Your task to perform on an android device: Go to network settings Image 0: 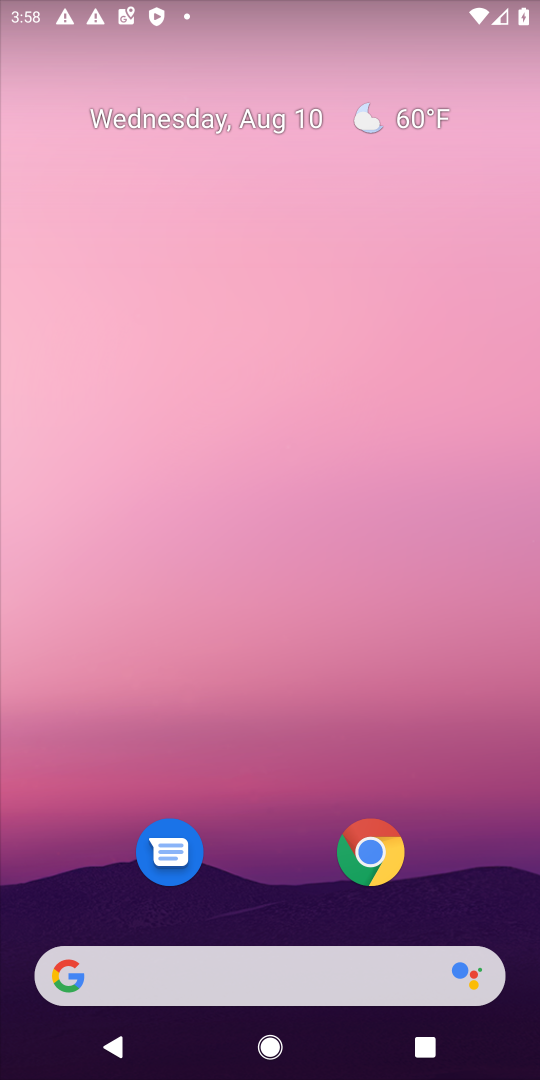
Step 0: drag from (335, 789) to (535, 249)
Your task to perform on an android device: Go to network settings Image 1: 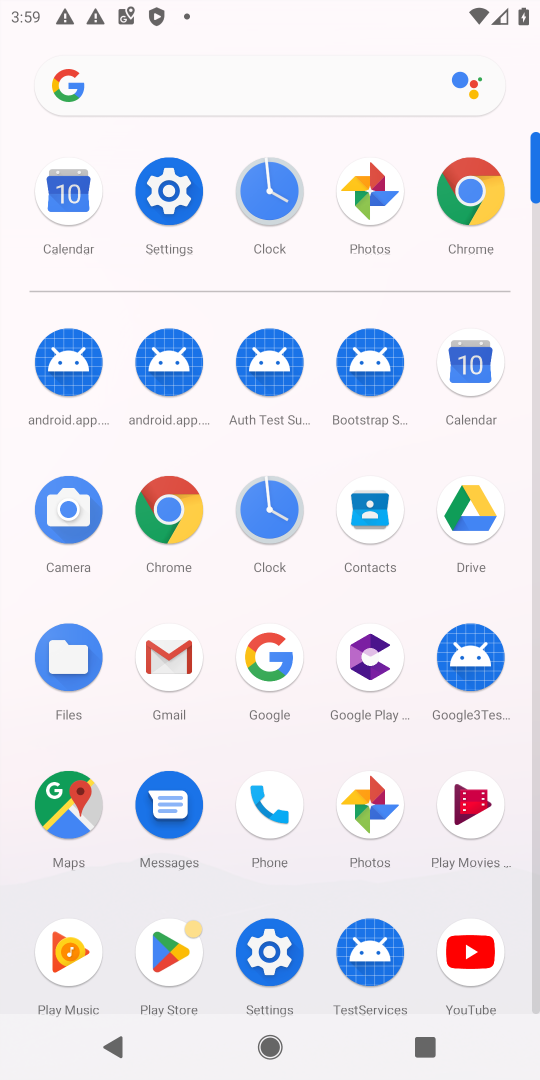
Step 1: click (273, 945)
Your task to perform on an android device: Go to network settings Image 2: 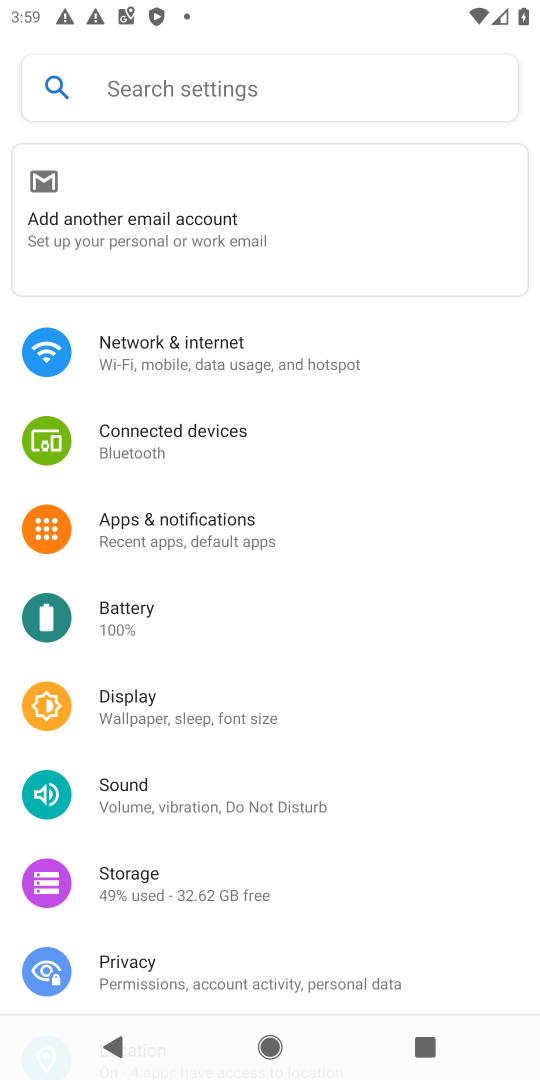
Step 2: click (238, 331)
Your task to perform on an android device: Go to network settings Image 3: 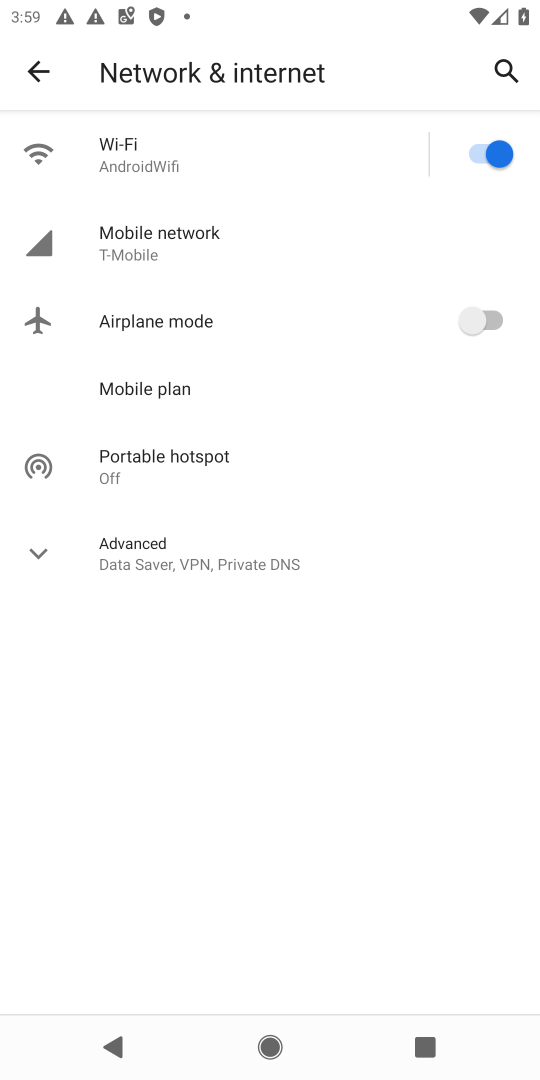
Step 3: task complete